Your task to perform on an android device: Show me the alarms in the clock app Image 0: 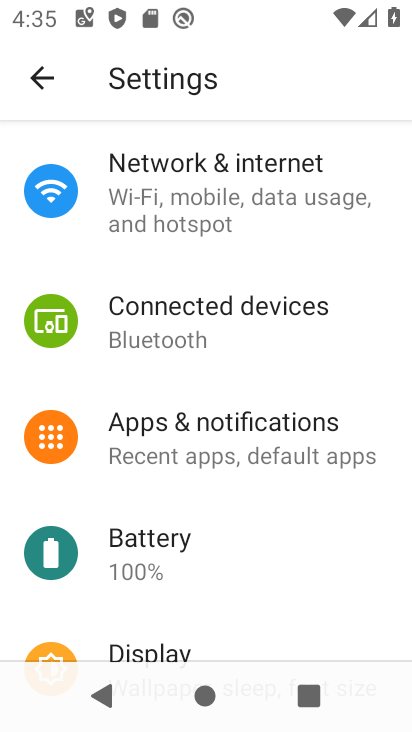
Step 0: press home button
Your task to perform on an android device: Show me the alarms in the clock app Image 1: 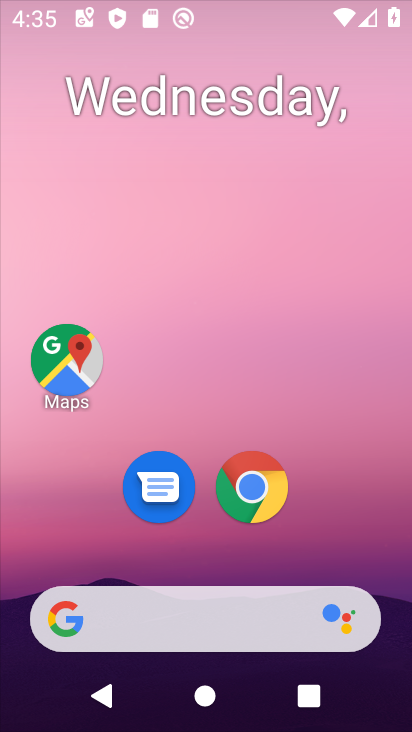
Step 1: drag from (204, 536) to (215, 6)
Your task to perform on an android device: Show me the alarms in the clock app Image 2: 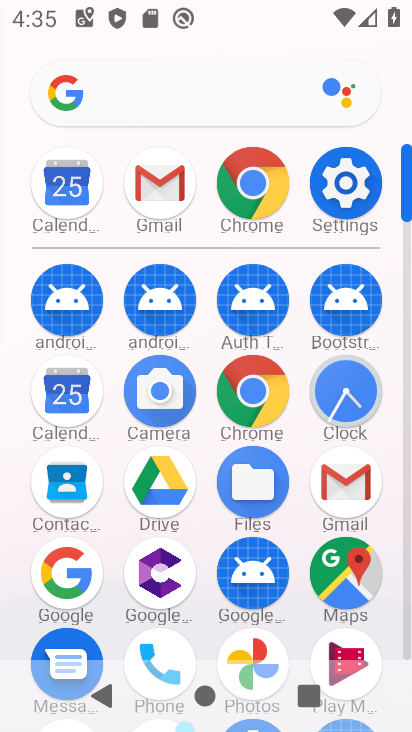
Step 2: click (340, 394)
Your task to perform on an android device: Show me the alarms in the clock app Image 3: 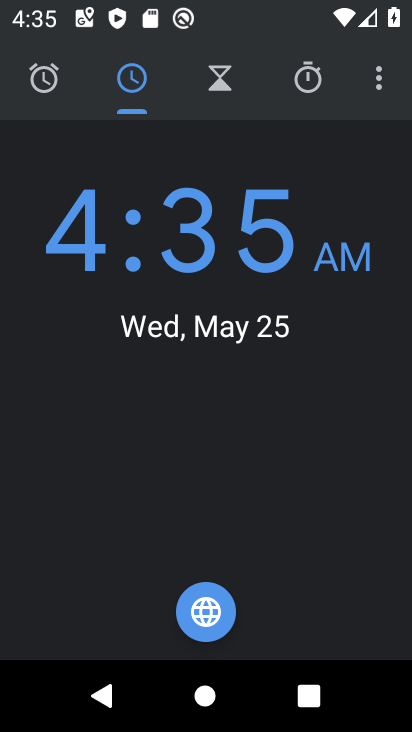
Step 3: click (39, 78)
Your task to perform on an android device: Show me the alarms in the clock app Image 4: 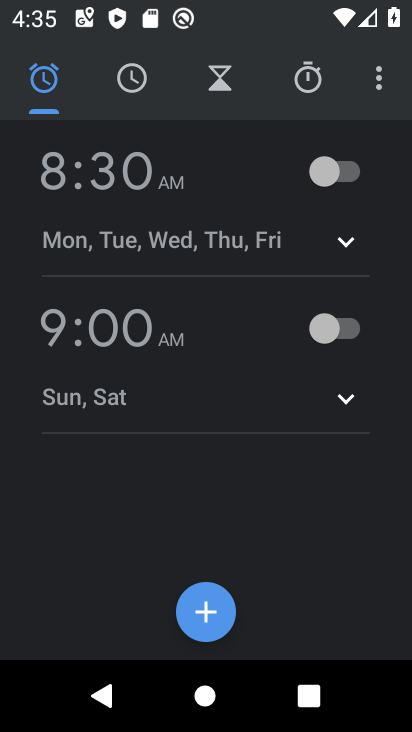
Step 4: click (322, 177)
Your task to perform on an android device: Show me the alarms in the clock app Image 5: 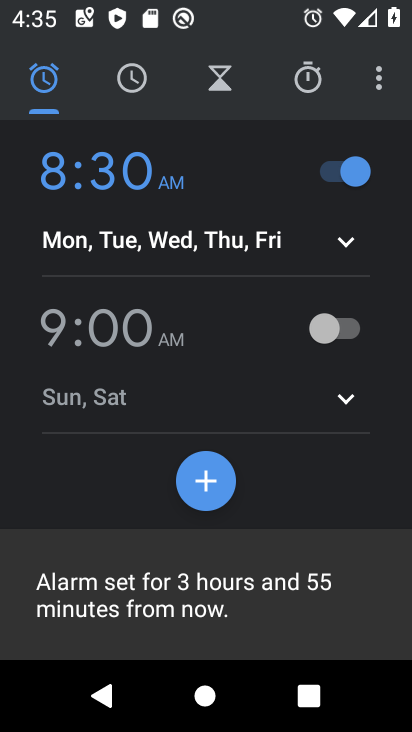
Step 5: task complete